Your task to perform on an android device: Search for sushi restaurants on Maps Image 0: 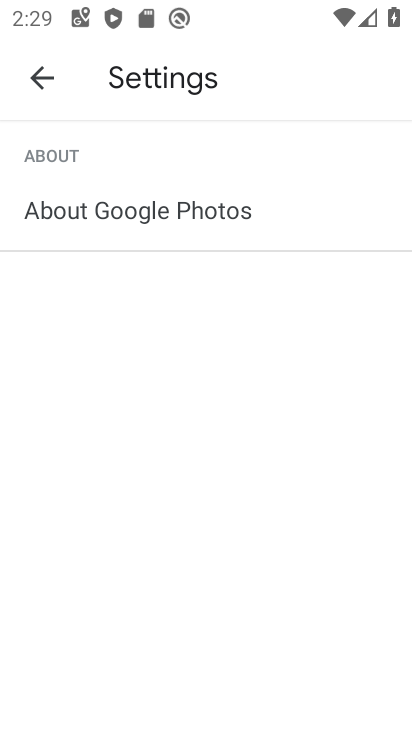
Step 0: press home button
Your task to perform on an android device: Search for sushi restaurants on Maps Image 1: 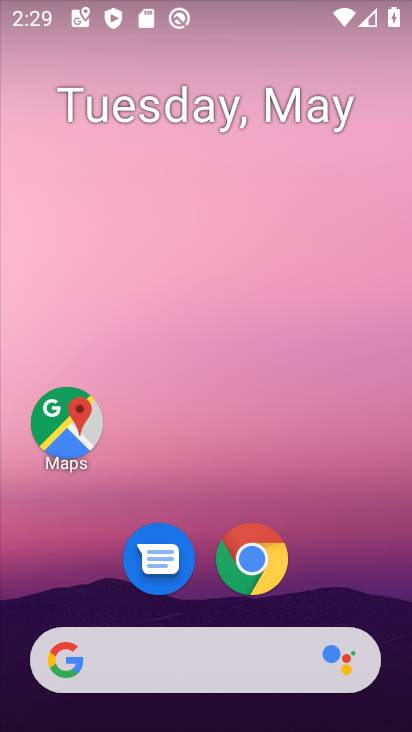
Step 1: click (61, 431)
Your task to perform on an android device: Search for sushi restaurants on Maps Image 2: 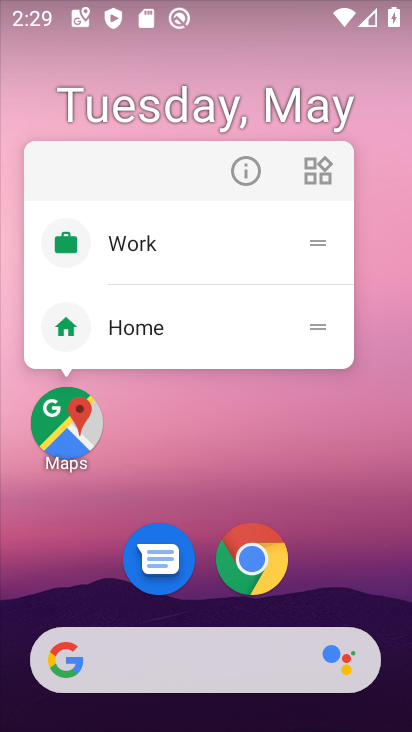
Step 2: click (66, 428)
Your task to perform on an android device: Search for sushi restaurants on Maps Image 3: 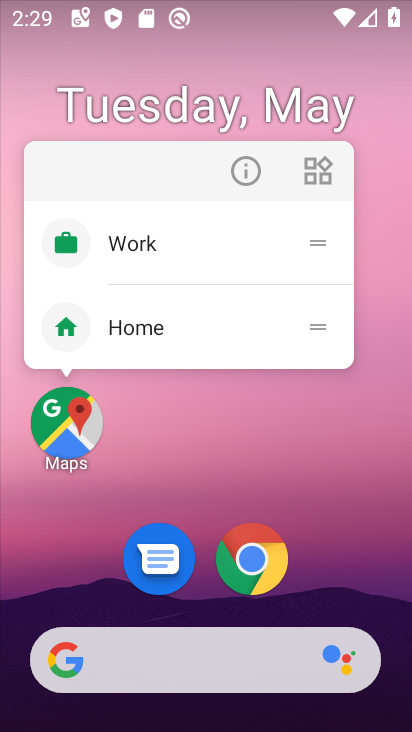
Step 3: click (71, 427)
Your task to perform on an android device: Search for sushi restaurants on Maps Image 4: 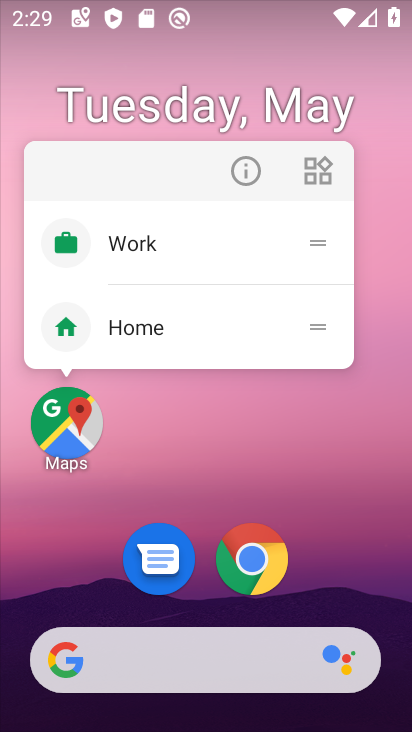
Step 4: click (71, 427)
Your task to perform on an android device: Search for sushi restaurants on Maps Image 5: 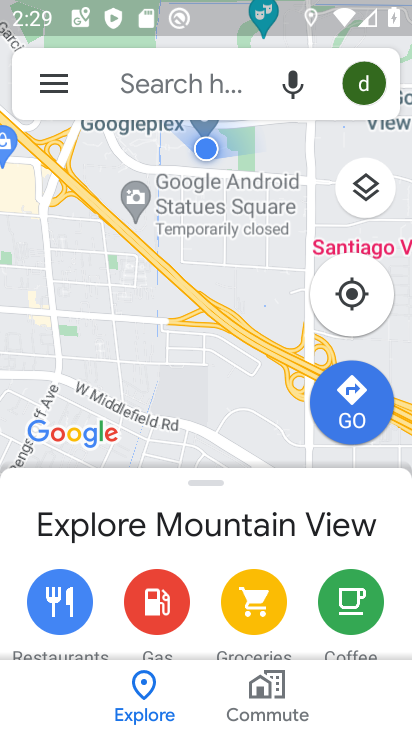
Step 5: click (194, 96)
Your task to perform on an android device: Search for sushi restaurants on Maps Image 6: 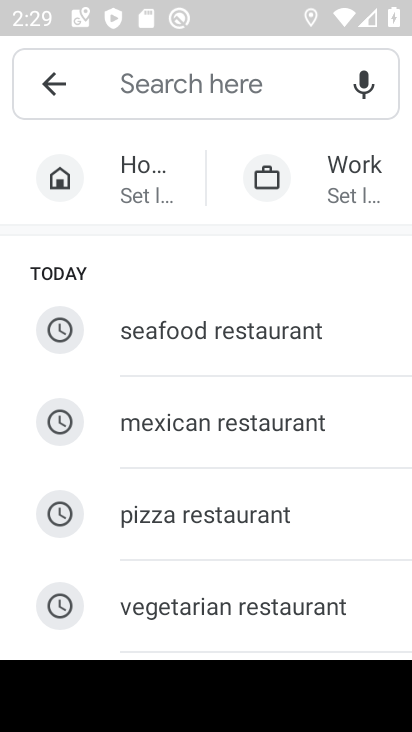
Step 6: drag from (190, 550) to (356, 219)
Your task to perform on an android device: Search for sushi restaurants on Maps Image 7: 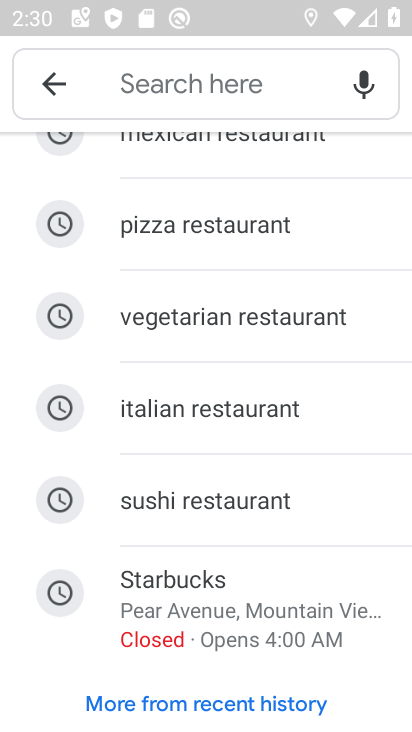
Step 7: click (205, 497)
Your task to perform on an android device: Search for sushi restaurants on Maps Image 8: 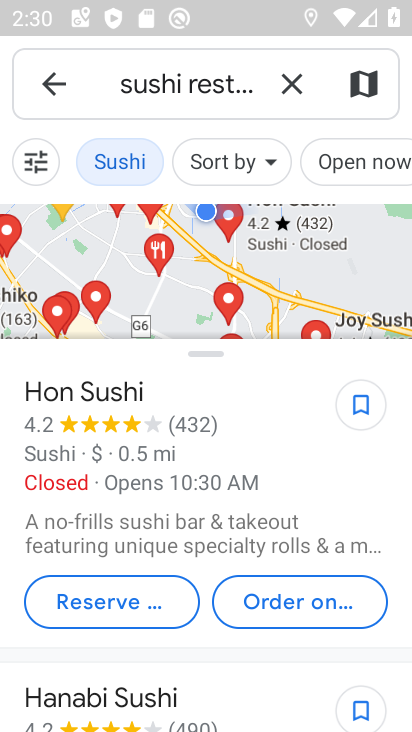
Step 8: task complete